Your task to perform on an android device: change the clock display to show seconds Image 0: 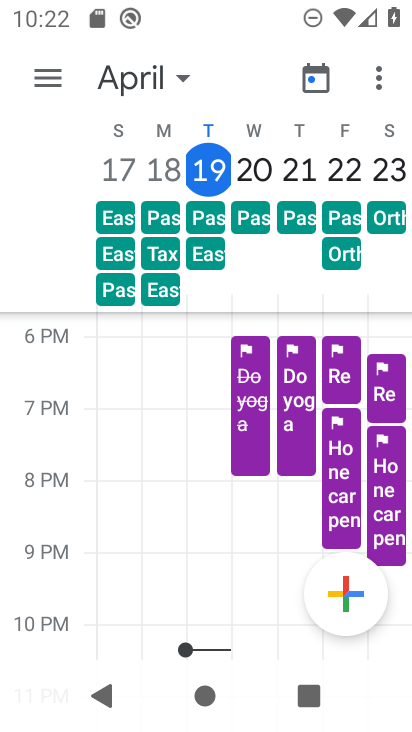
Step 0: press home button
Your task to perform on an android device: change the clock display to show seconds Image 1: 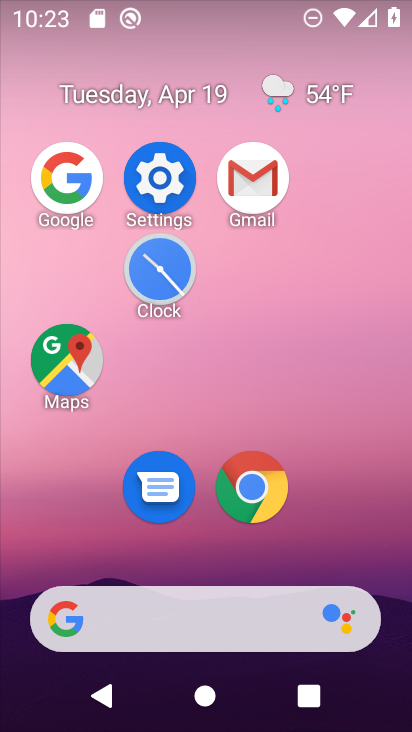
Step 1: click (177, 272)
Your task to perform on an android device: change the clock display to show seconds Image 2: 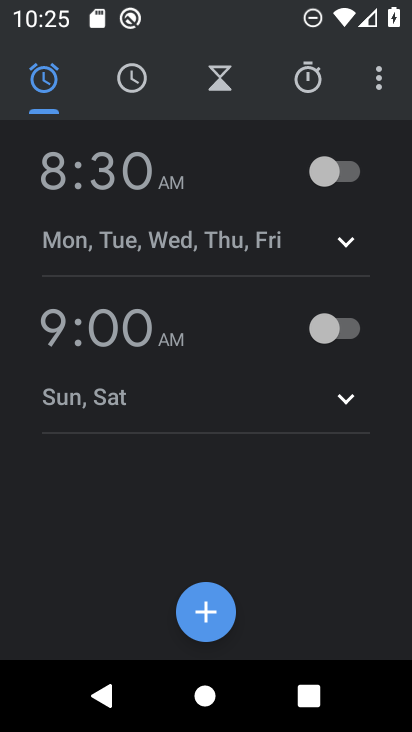
Step 2: click (382, 86)
Your task to perform on an android device: change the clock display to show seconds Image 3: 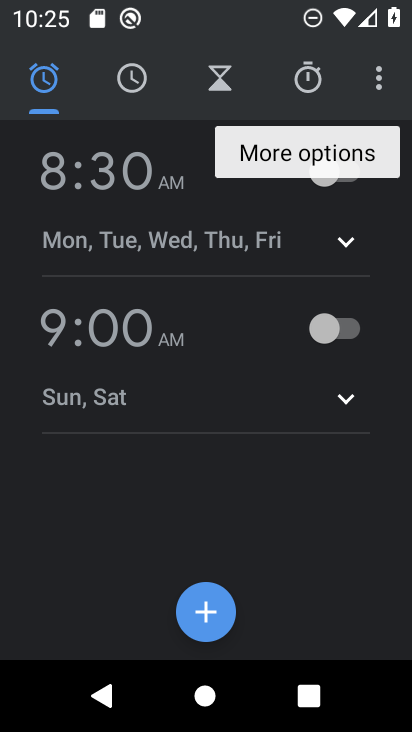
Step 3: click (382, 86)
Your task to perform on an android device: change the clock display to show seconds Image 4: 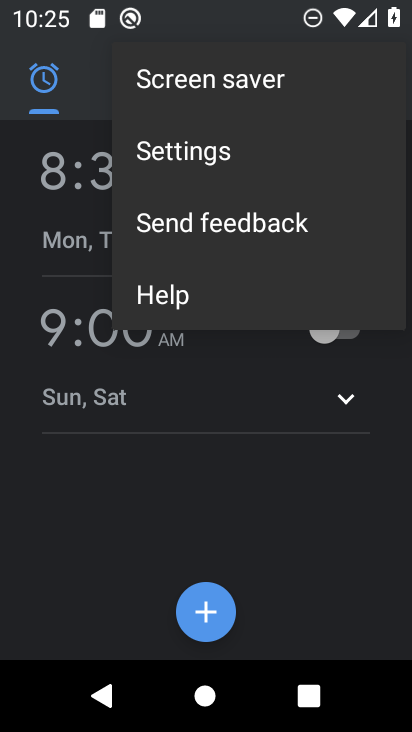
Step 4: click (273, 160)
Your task to perform on an android device: change the clock display to show seconds Image 5: 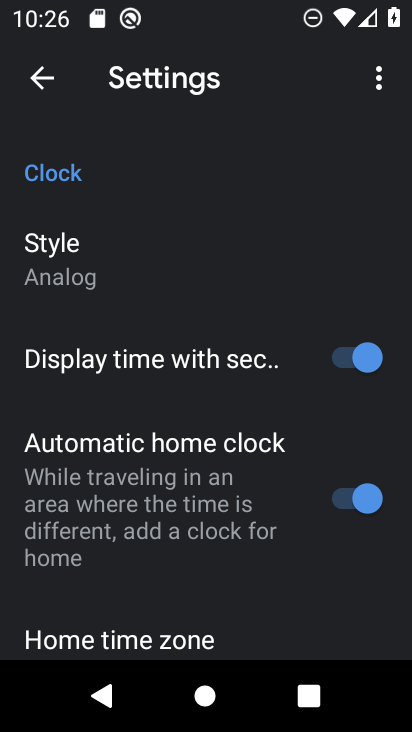
Step 5: click (364, 353)
Your task to perform on an android device: change the clock display to show seconds Image 6: 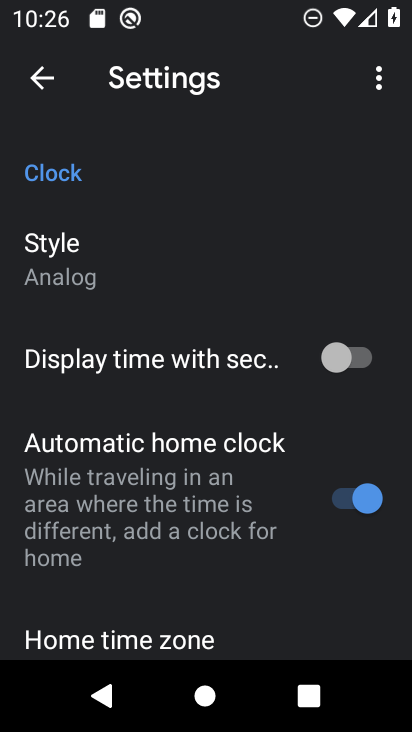
Step 6: task complete